Your task to perform on an android device: move an email to a new category in the gmail app Image 0: 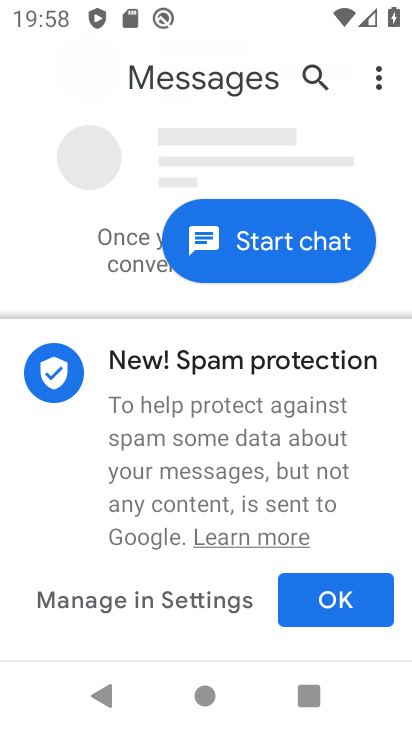
Step 0: press home button
Your task to perform on an android device: move an email to a new category in the gmail app Image 1: 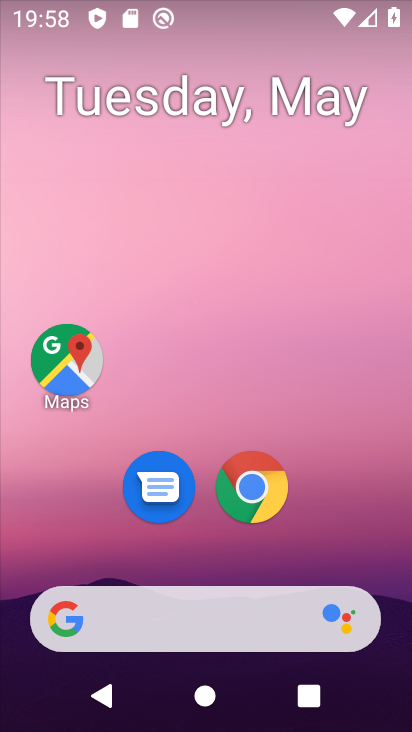
Step 1: drag from (327, 522) to (307, 122)
Your task to perform on an android device: move an email to a new category in the gmail app Image 2: 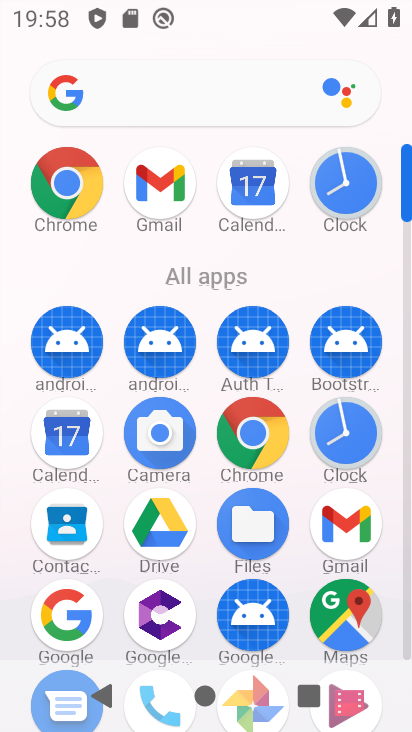
Step 2: click (360, 547)
Your task to perform on an android device: move an email to a new category in the gmail app Image 3: 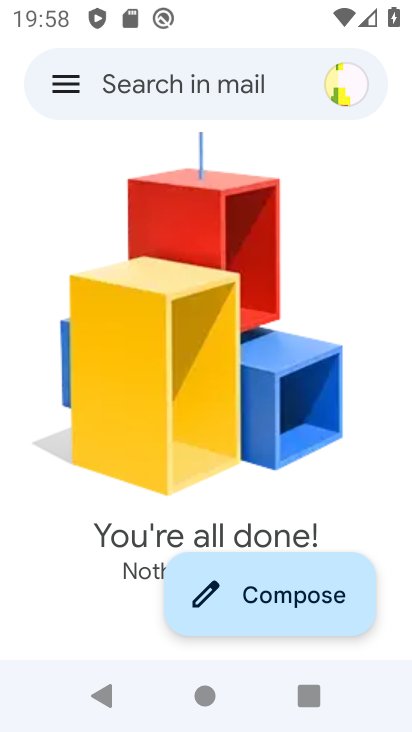
Step 3: click (57, 77)
Your task to perform on an android device: move an email to a new category in the gmail app Image 4: 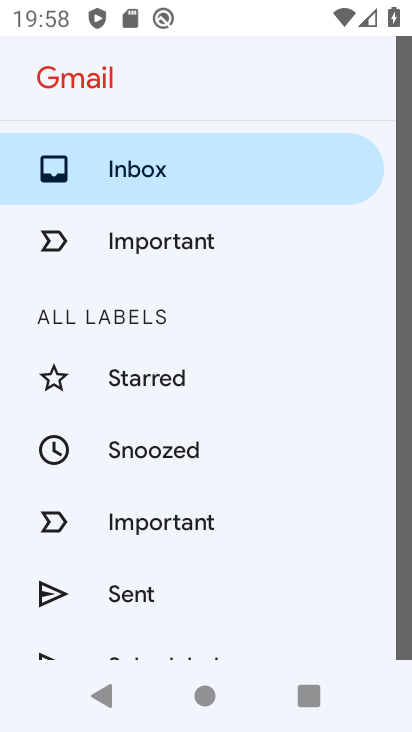
Step 4: drag from (122, 471) to (142, 262)
Your task to perform on an android device: move an email to a new category in the gmail app Image 5: 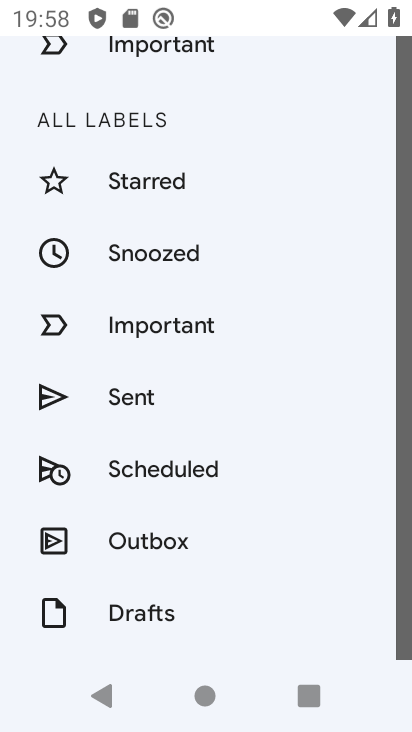
Step 5: drag from (132, 542) to (169, 288)
Your task to perform on an android device: move an email to a new category in the gmail app Image 6: 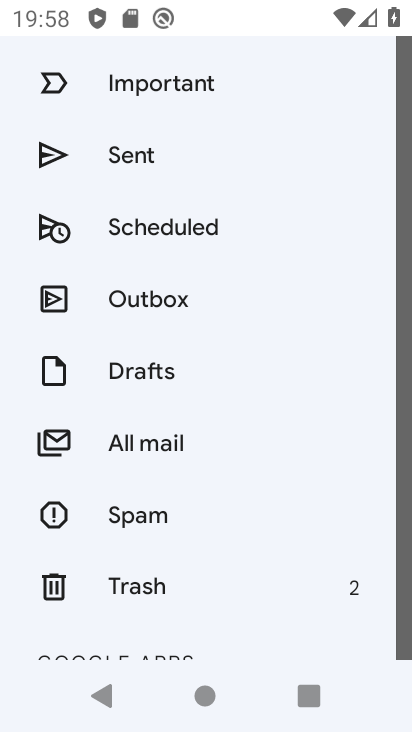
Step 6: drag from (165, 600) to (173, 392)
Your task to perform on an android device: move an email to a new category in the gmail app Image 7: 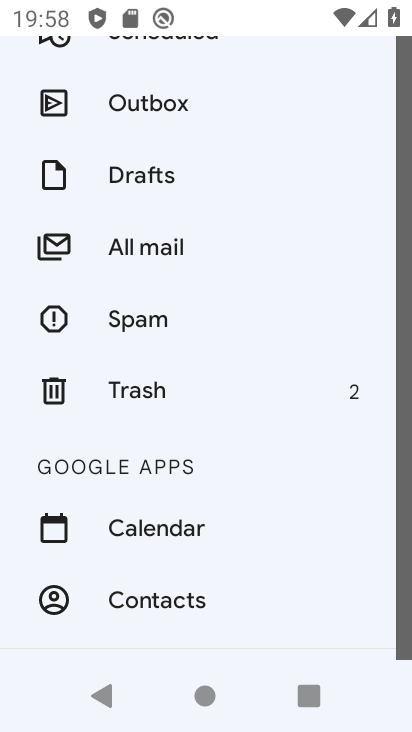
Step 7: click (201, 254)
Your task to perform on an android device: move an email to a new category in the gmail app Image 8: 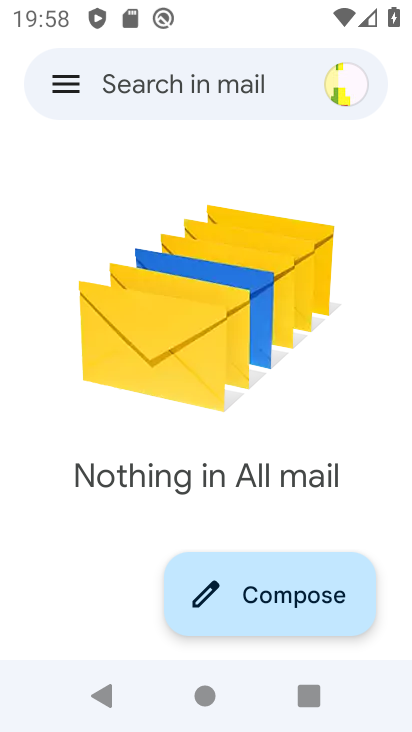
Step 8: click (104, 133)
Your task to perform on an android device: move an email to a new category in the gmail app Image 9: 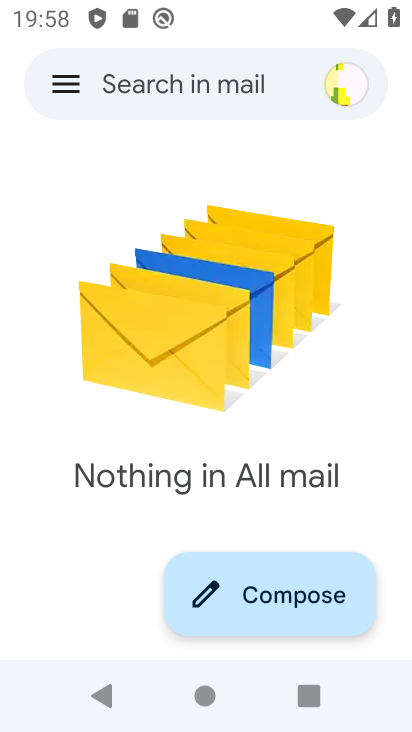
Step 9: click (60, 75)
Your task to perform on an android device: move an email to a new category in the gmail app Image 10: 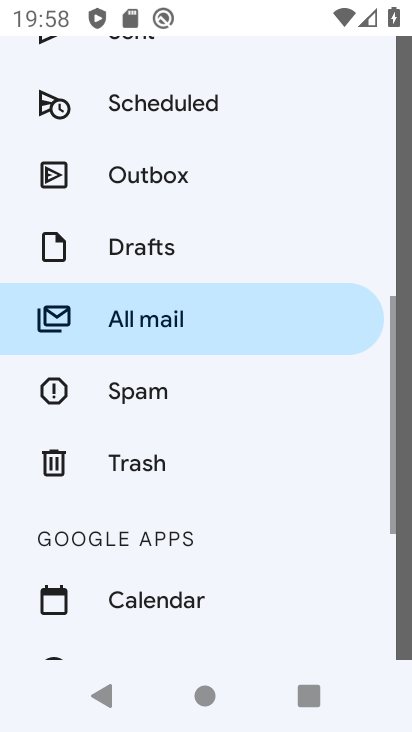
Step 10: click (135, 470)
Your task to perform on an android device: move an email to a new category in the gmail app Image 11: 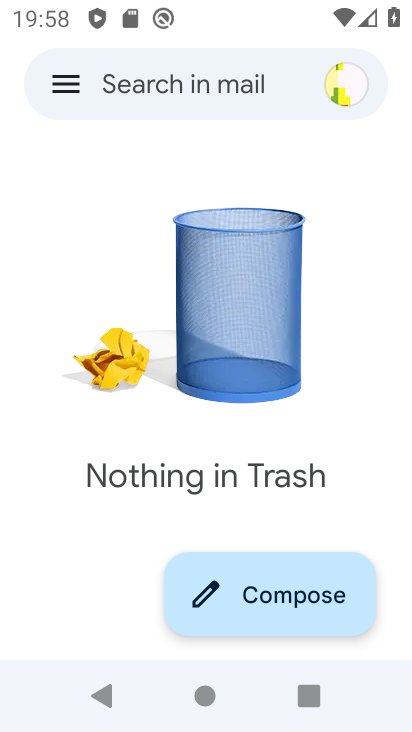
Step 11: task complete